Your task to perform on an android device: move a message to another label in the gmail app Image 0: 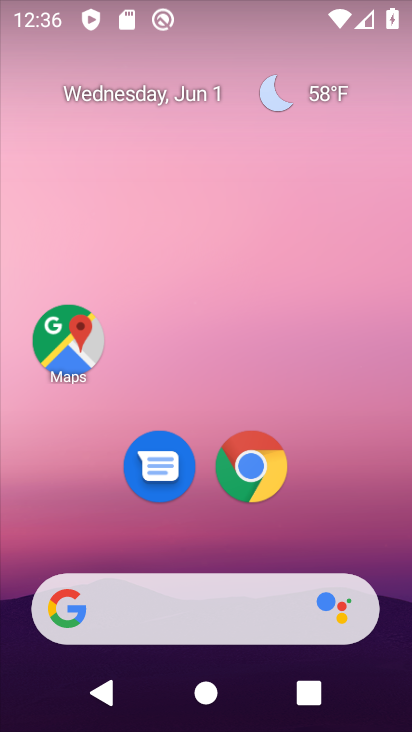
Step 0: drag from (145, 728) to (137, 40)
Your task to perform on an android device: move a message to another label in the gmail app Image 1: 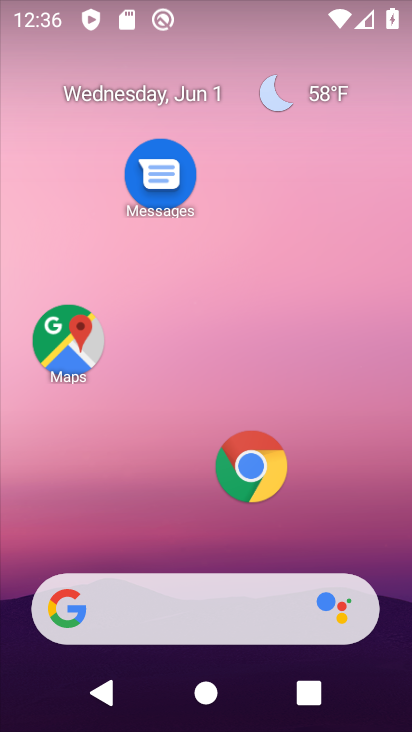
Step 1: drag from (165, 727) to (175, 154)
Your task to perform on an android device: move a message to another label in the gmail app Image 2: 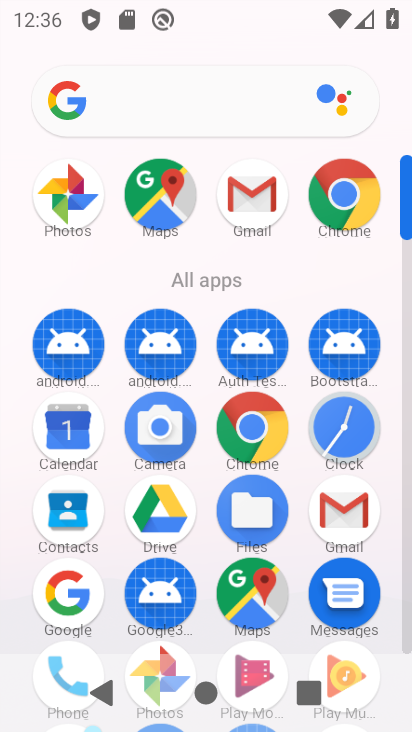
Step 2: click (246, 226)
Your task to perform on an android device: move a message to another label in the gmail app Image 3: 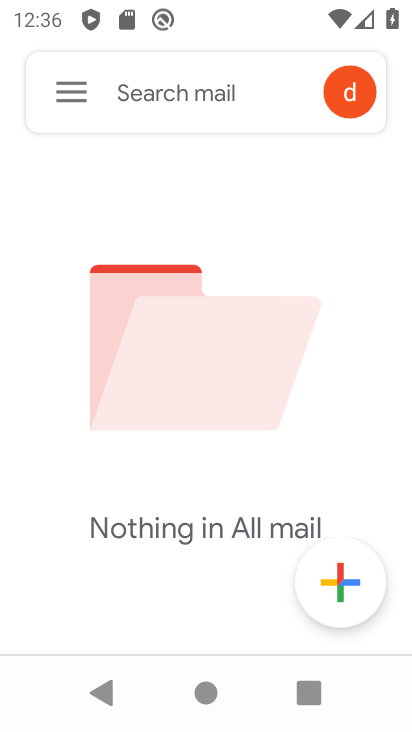
Step 3: click (70, 93)
Your task to perform on an android device: move a message to another label in the gmail app Image 4: 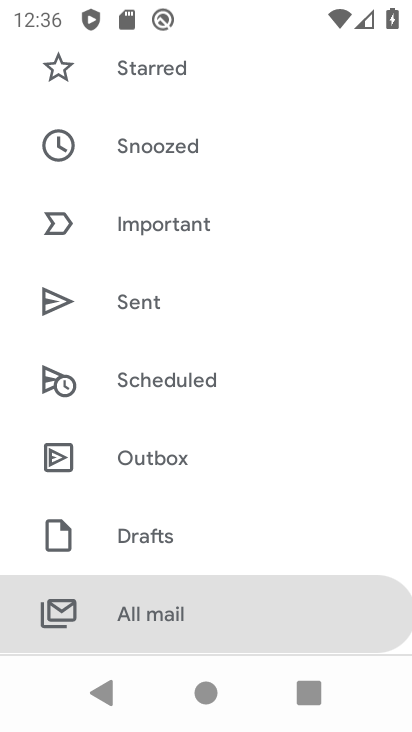
Step 4: drag from (280, 168) to (302, 682)
Your task to perform on an android device: move a message to another label in the gmail app Image 5: 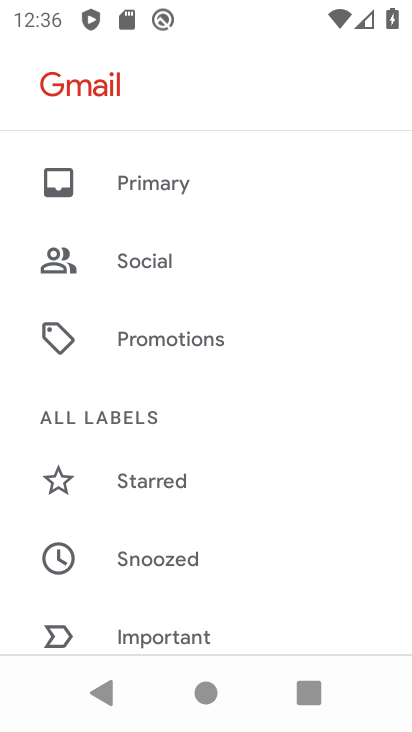
Step 5: click (163, 198)
Your task to perform on an android device: move a message to another label in the gmail app Image 6: 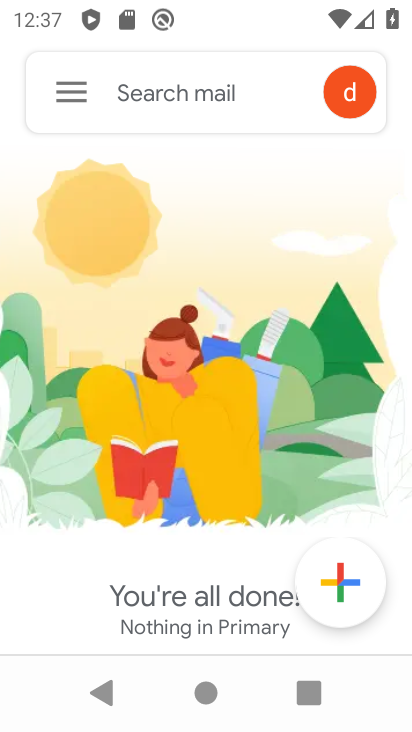
Step 6: task complete